Your task to perform on an android device: Go to calendar. Show me events next week Image 0: 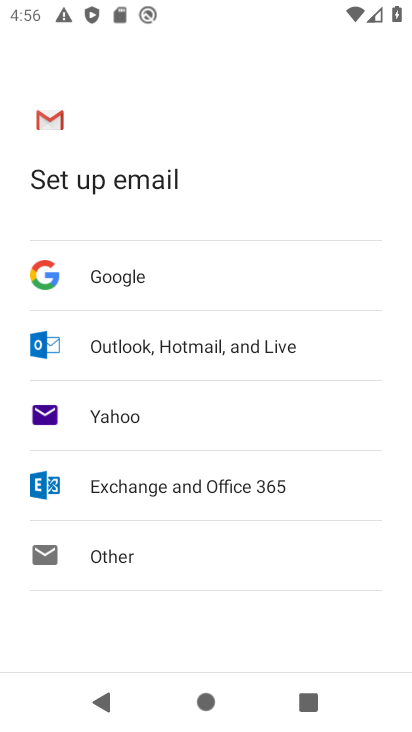
Step 0: press home button
Your task to perform on an android device: Go to calendar. Show me events next week Image 1: 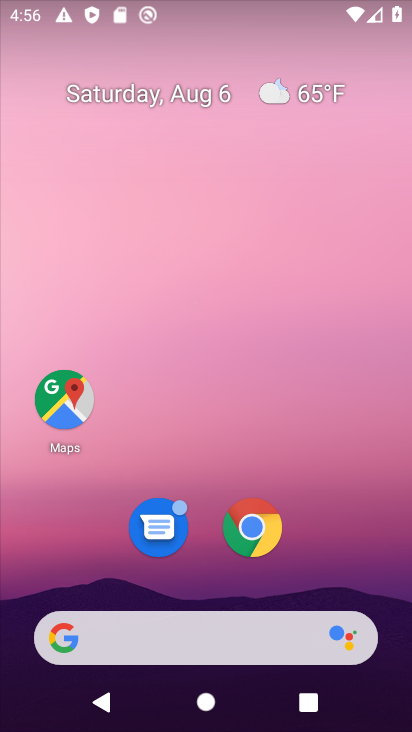
Step 1: drag from (202, 640) to (150, 181)
Your task to perform on an android device: Go to calendar. Show me events next week Image 2: 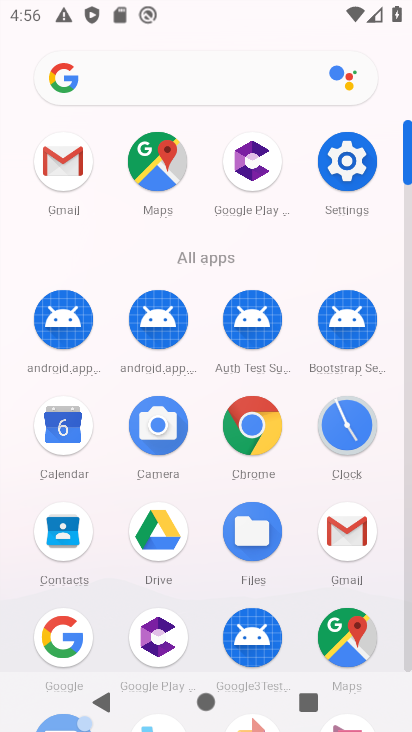
Step 2: click (57, 441)
Your task to perform on an android device: Go to calendar. Show me events next week Image 3: 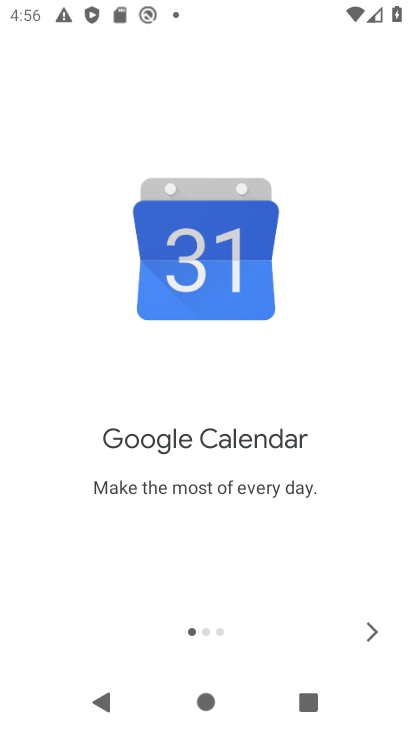
Step 3: click (361, 630)
Your task to perform on an android device: Go to calendar. Show me events next week Image 4: 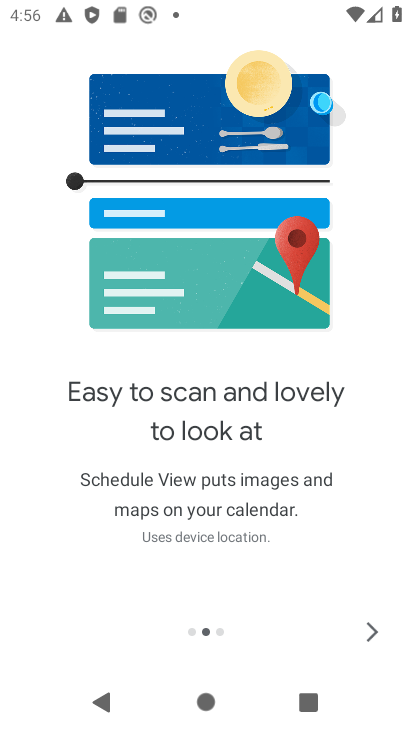
Step 4: click (361, 630)
Your task to perform on an android device: Go to calendar. Show me events next week Image 5: 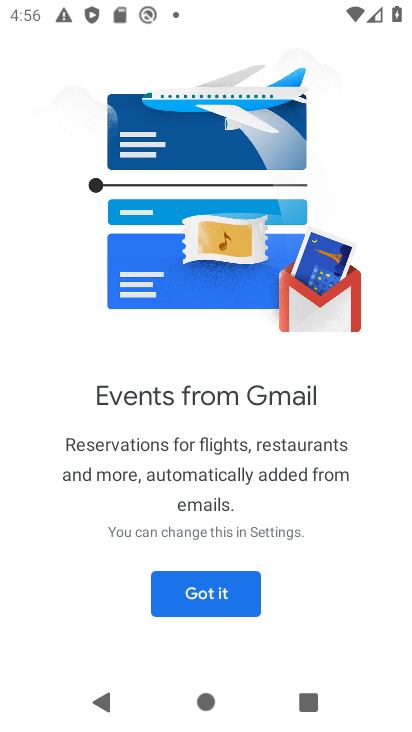
Step 5: click (216, 604)
Your task to perform on an android device: Go to calendar. Show me events next week Image 6: 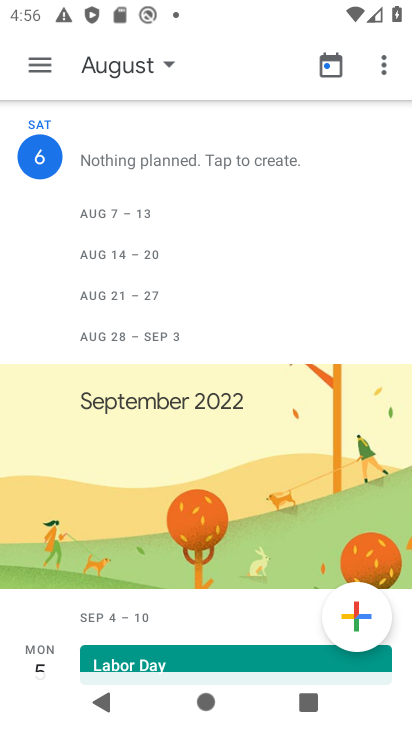
Step 6: click (40, 74)
Your task to perform on an android device: Go to calendar. Show me events next week Image 7: 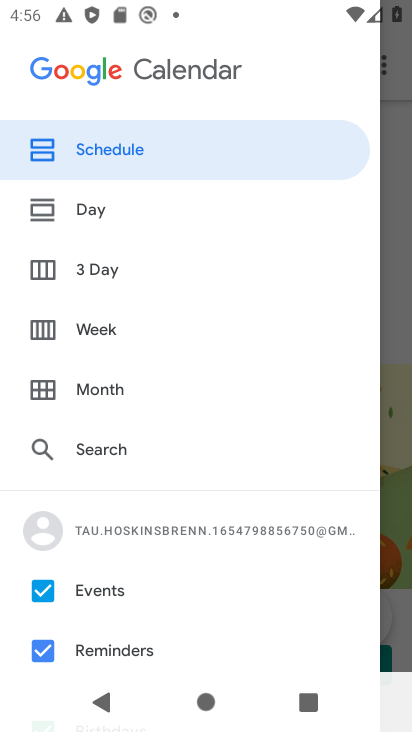
Step 7: click (94, 332)
Your task to perform on an android device: Go to calendar. Show me events next week Image 8: 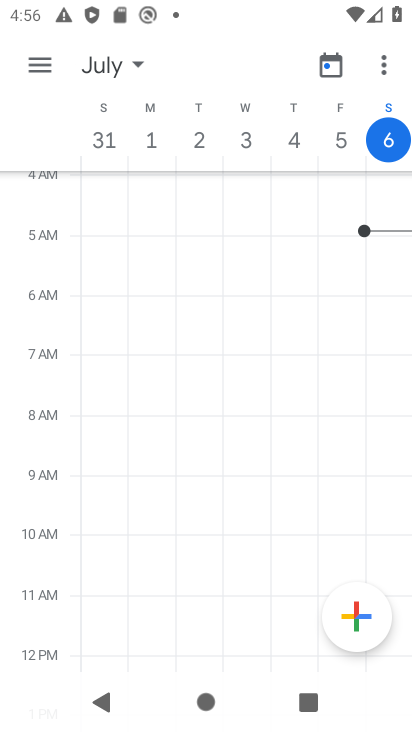
Step 8: task complete